Your task to perform on an android device: Turn off the flashlight Image 0: 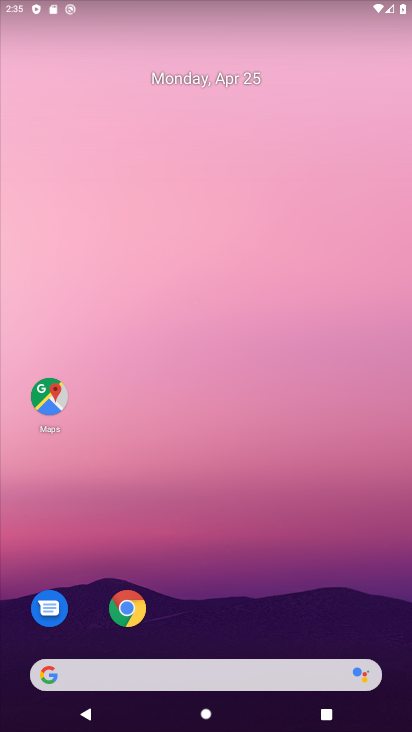
Step 0: drag from (269, 6) to (227, 384)
Your task to perform on an android device: Turn off the flashlight Image 1: 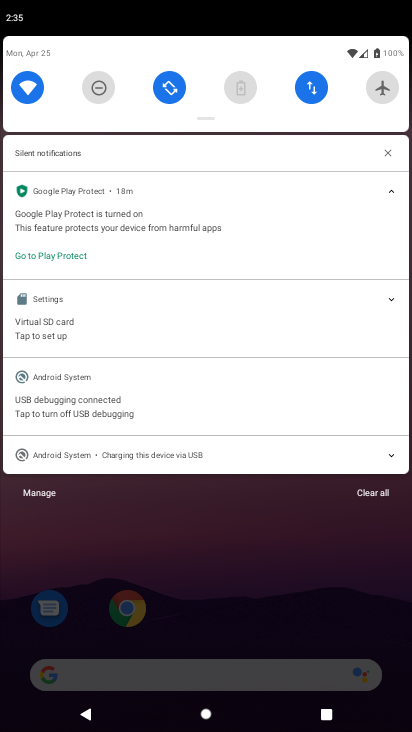
Step 1: task complete